Your task to perform on an android device: add a label to a message in the gmail app Image 0: 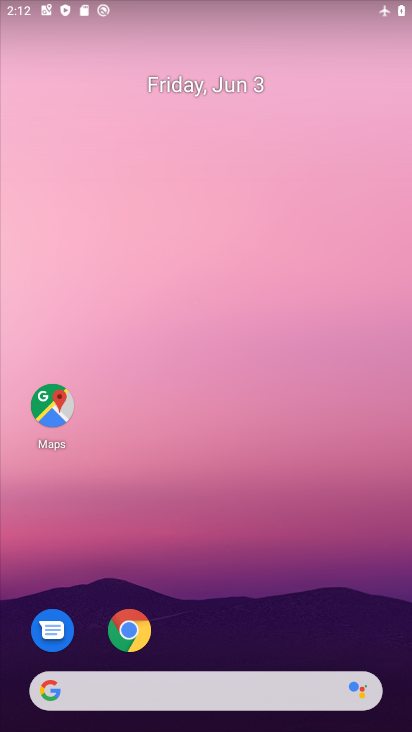
Step 0: drag from (233, 717) to (228, 134)
Your task to perform on an android device: add a label to a message in the gmail app Image 1: 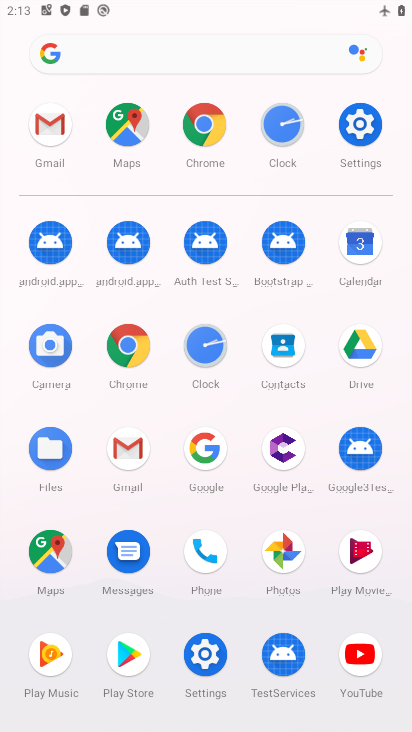
Step 1: click (130, 446)
Your task to perform on an android device: add a label to a message in the gmail app Image 2: 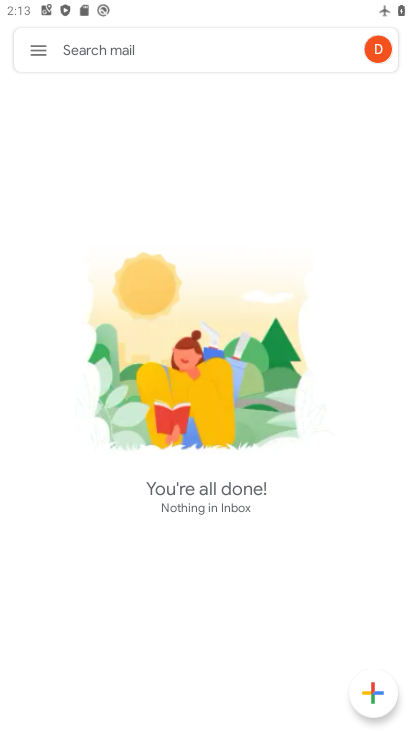
Step 2: task complete